Your task to perform on an android device: turn off translation in the chrome app Image 0: 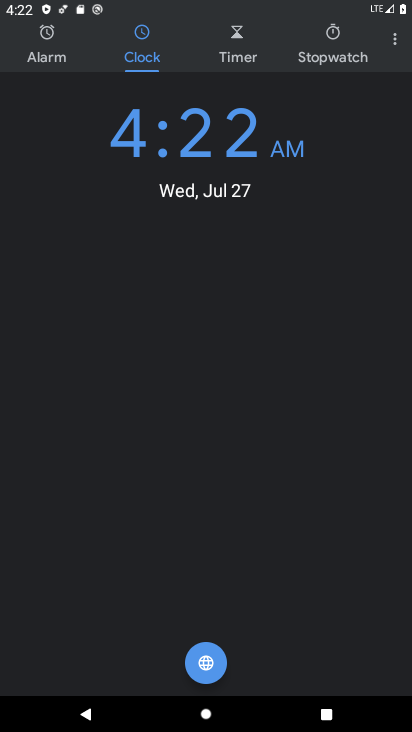
Step 0: drag from (281, 483) to (232, 39)
Your task to perform on an android device: turn off translation in the chrome app Image 1: 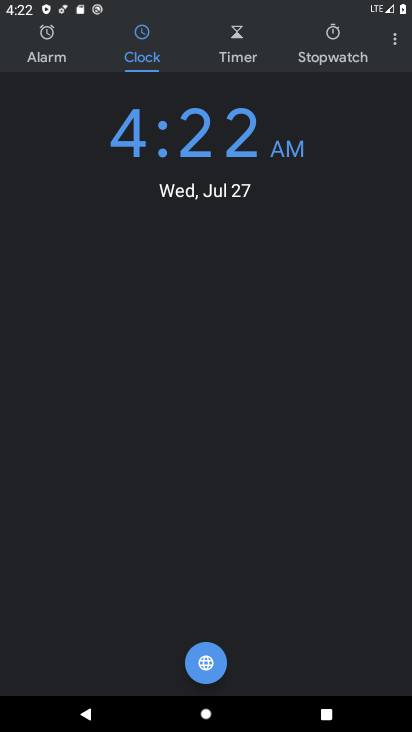
Step 1: drag from (312, 353) to (315, 15)
Your task to perform on an android device: turn off translation in the chrome app Image 2: 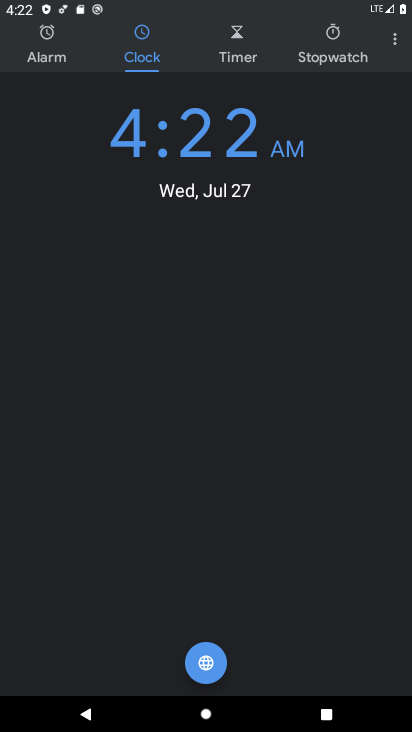
Step 2: press back button
Your task to perform on an android device: turn off translation in the chrome app Image 3: 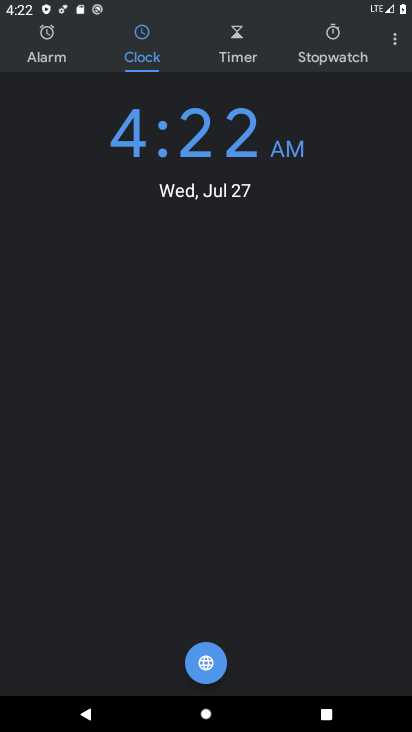
Step 3: press back button
Your task to perform on an android device: turn off translation in the chrome app Image 4: 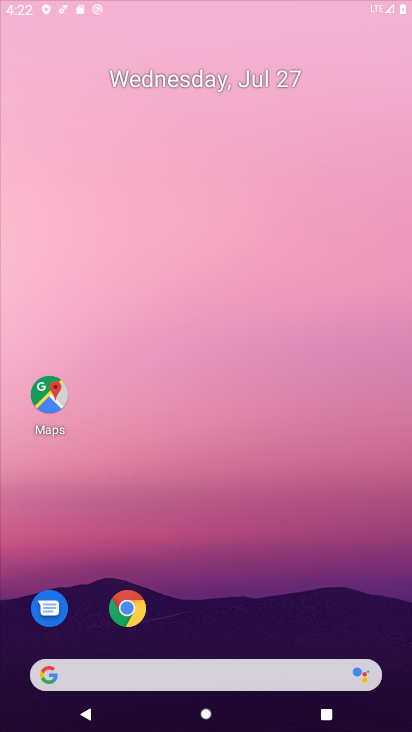
Step 4: press back button
Your task to perform on an android device: turn off translation in the chrome app Image 5: 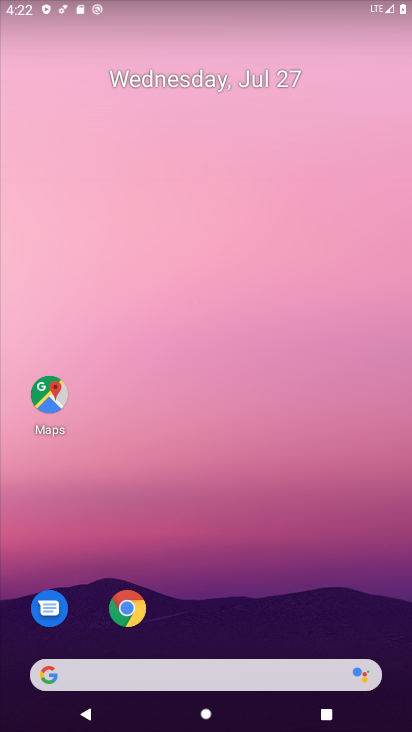
Step 5: drag from (337, 653) to (125, 143)
Your task to perform on an android device: turn off translation in the chrome app Image 6: 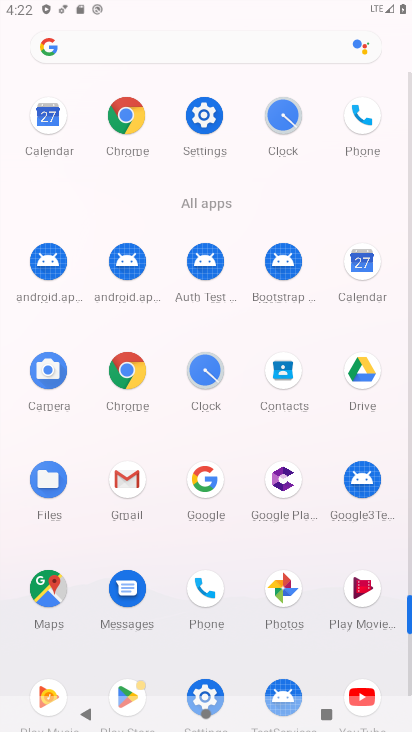
Step 6: drag from (204, 494) to (156, 43)
Your task to perform on an android device: turn off translation in the chrome app Image 7: 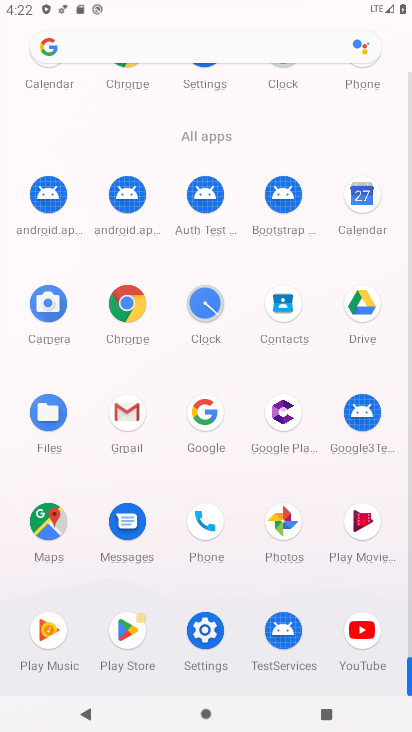
Step 7: click (121, 305)
Your task to perform on an android device: turn off translation in the chrome app Image 8: 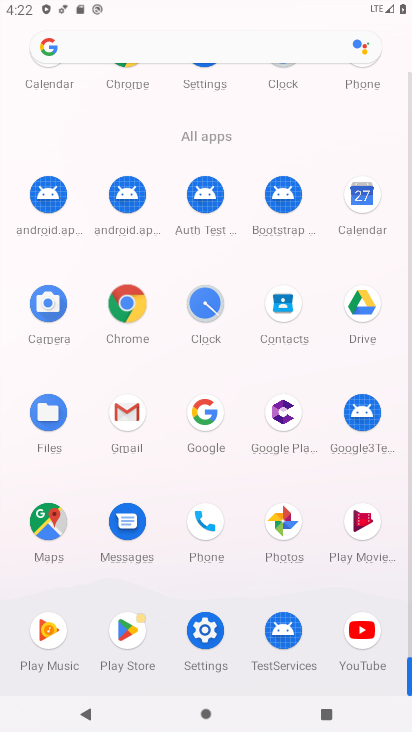
Step 8: click (121, 305)
Your task to perform on an android device: turn off translation in the chrome app Image 9: 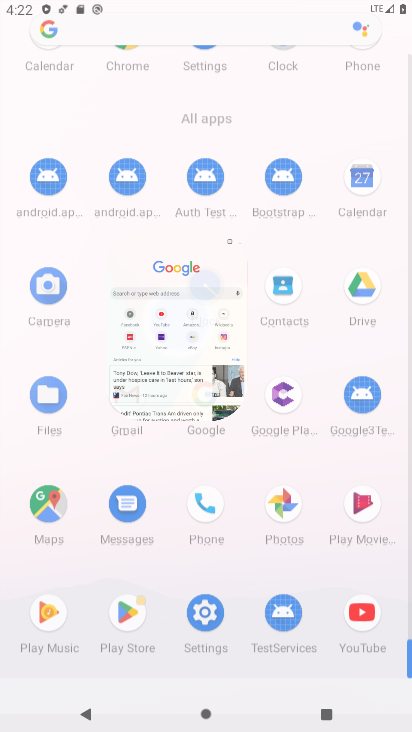
Step 9: click (122, 307)
Your task to perform on an android device: turn off translation in the chrome app Image 10: 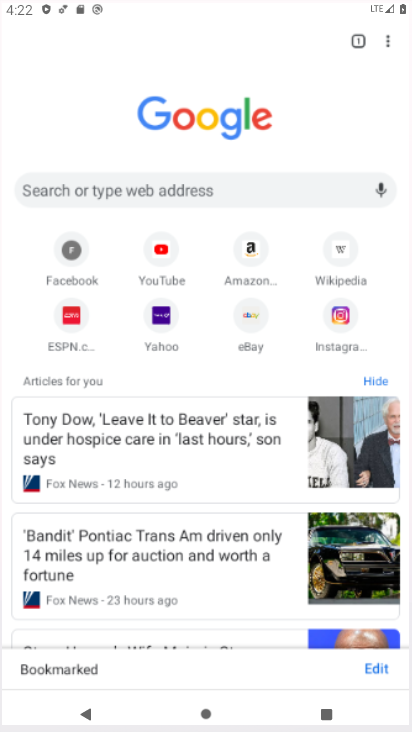
Step 10: click (123, 309)
Your task to perform on an android device: turn off translation in the chrome app Image 11: 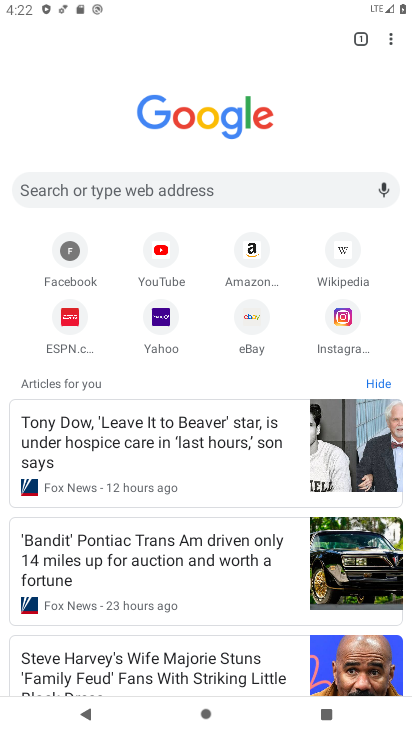
Step 11: drag from (387, 32) to (253, 336)
Your task to perform on an android device: turn off translation in the chrome app Image 12: 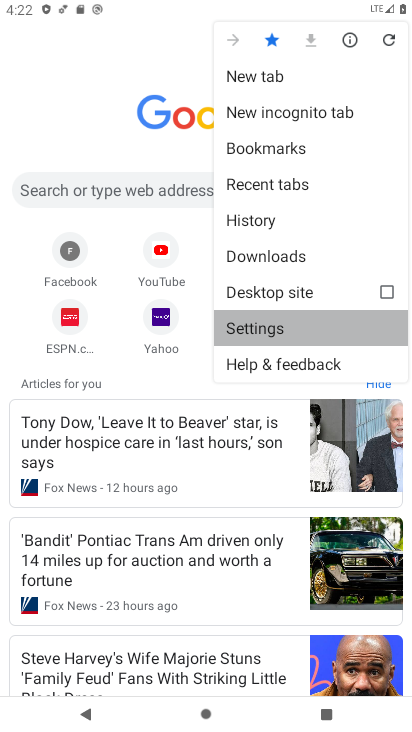
Step 12: click (253, 336)
Your task to perform on an android device: turn off translation in the chrome app Image 13: 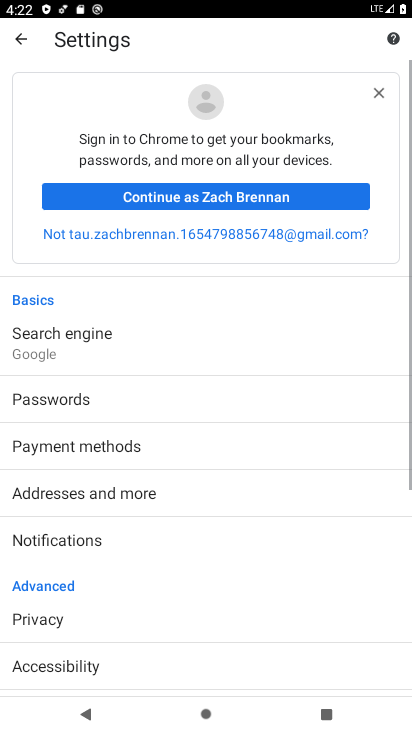
Step 13: drag from (44, 477) to (26, 182)
Your task to perform on an android device: turn off translation in the chrome app Image 14: 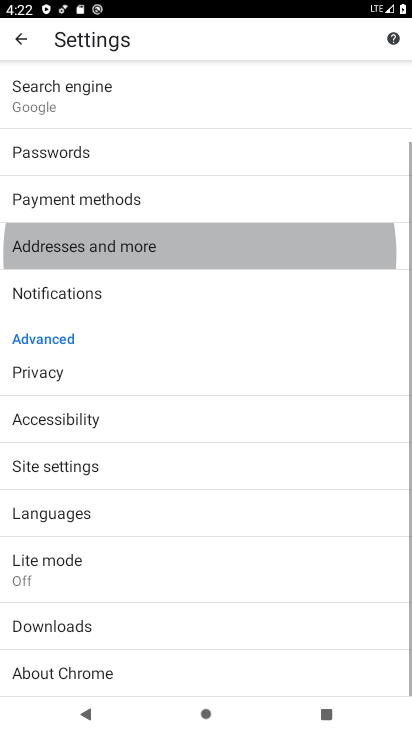
Step 14: drag from (72, 585) to (79, 309)
Your task to perform on an android device: turn off translation in the chrome app Image 15: 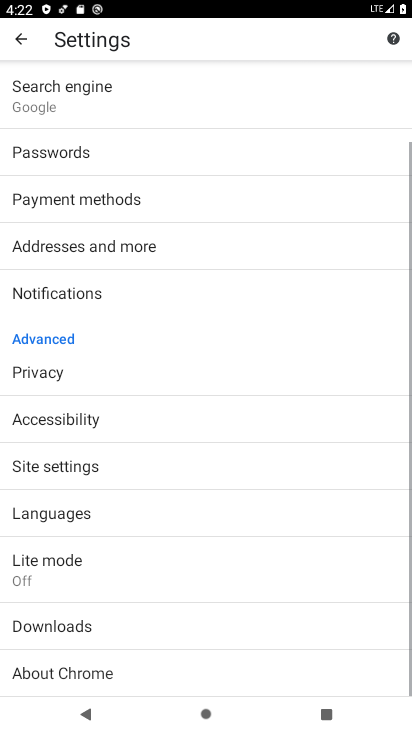
Step 15: drag from (112, 333) to (112, 216)
Your task to perform on an android device: turn off translation in the chrome app Image 16: 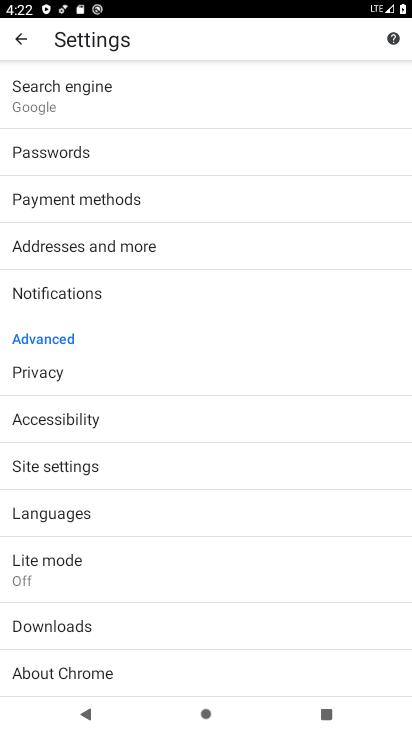
Step 16: click (112, 510)
Your task to perform on an android device: turn off translation in the chrome app Image 17: 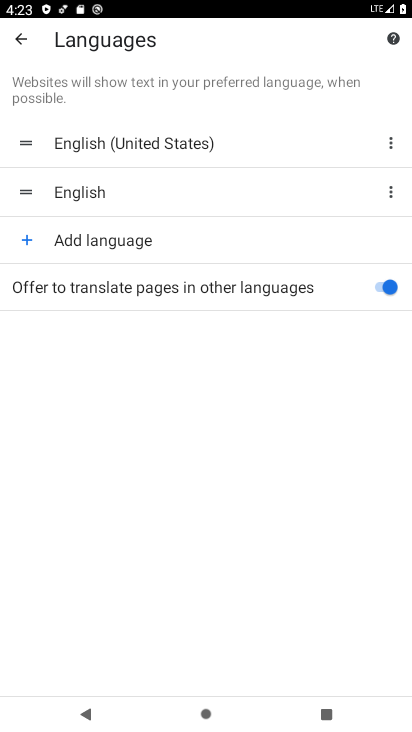
Step 17: click (5, 32)
Your task to perform on an android device: turn off translation in the chrome app Image 18: 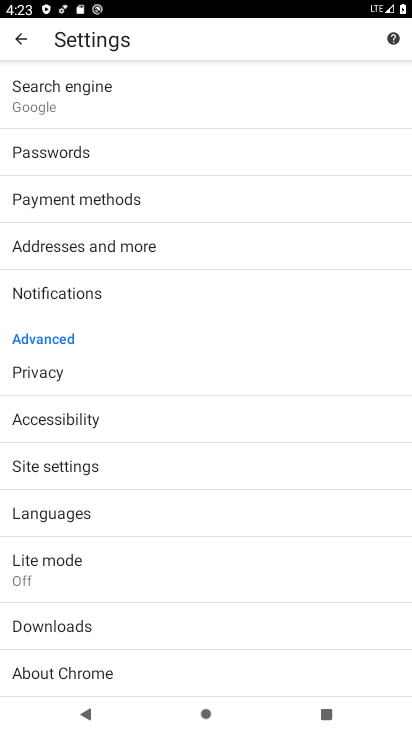
Step 18: click (118, 514)
Your task to perform on an android device: turn off translation in the chrome app Image 19: 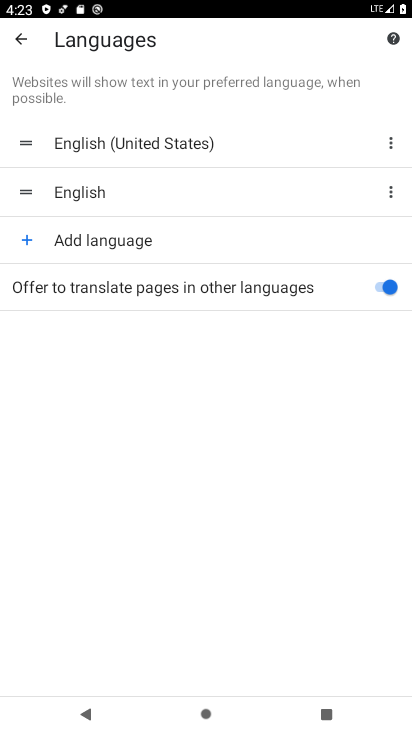
Step 19: click (384, 280)
Your task to perform on an android device: turn off translation in the chrome app Image 20: 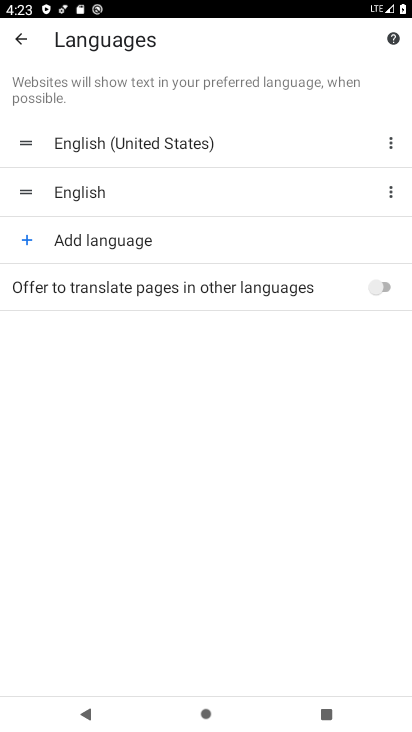
Step 20: task complete